Your task to perform on an android device: turn off picture-in-picture Image 0: 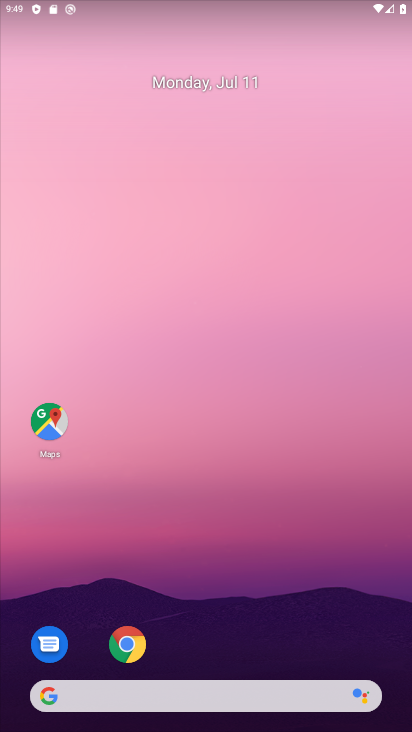
Step 0: click (119, 649)
Your task to perform on an android device: turn off picture-in-picture Image 1: 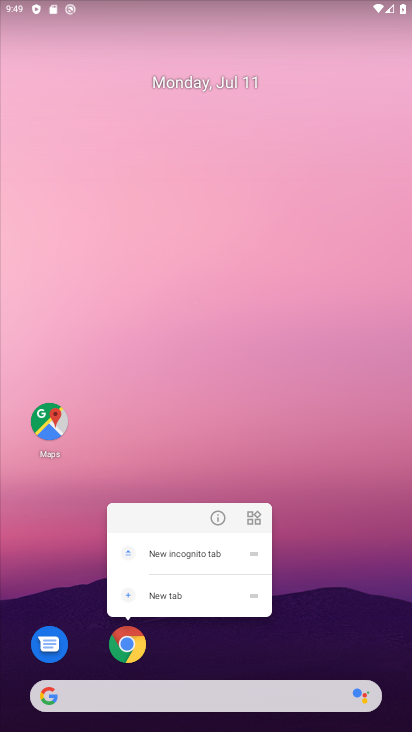
Step 1: click (215, 518)
Your task to perform on an android device: turn off picture-in-picture Image 2: 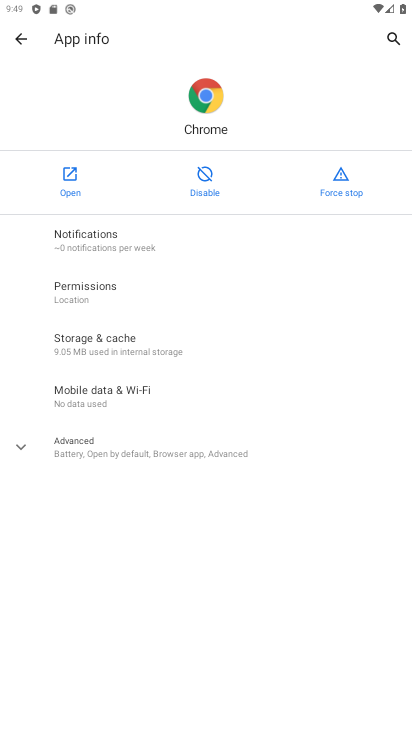
Step 2: click (123, 442)
Your task to perform on an android device: turn off picture-in-picture Image 3: 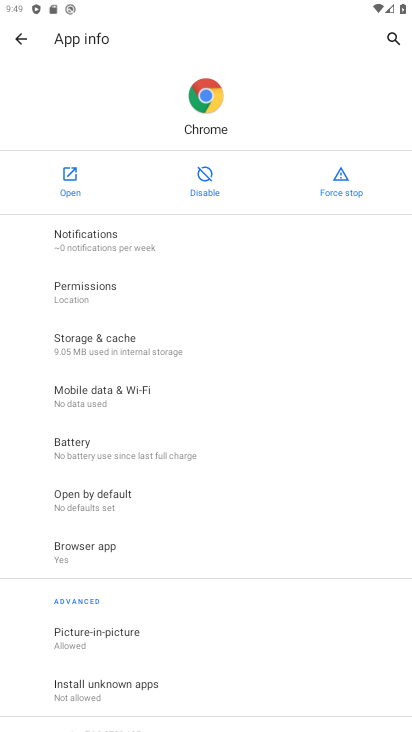
Step 3: click (114, 631)
Your task to perform on an android device: turn off picture-in-picture Image 4: 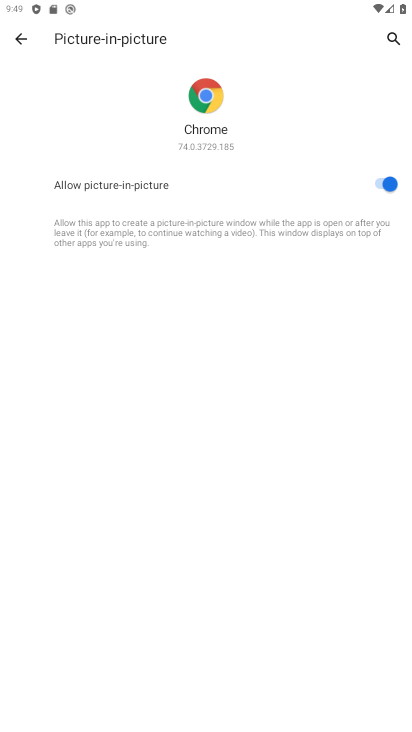
Step 4: click (393, 177)
Your task to perform on an android device: turn off picture-in-picture Image 5: 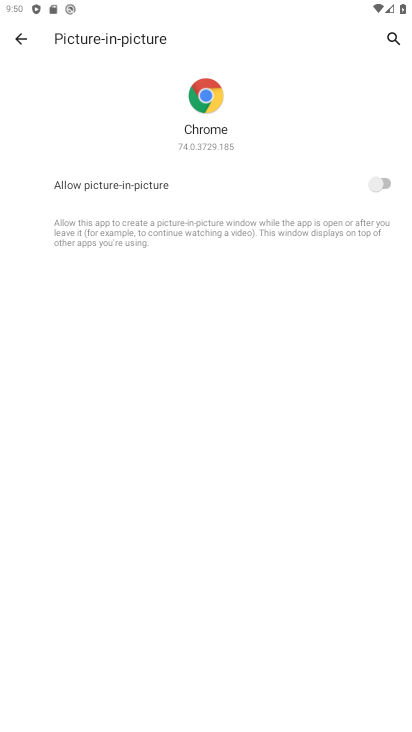
Step 5: task complete